Your task to perform on an android device: Go to settings Image 0: 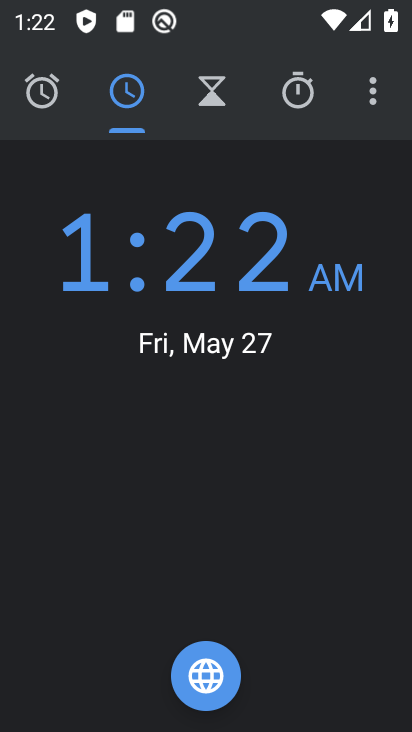
Step 0: press home button
Your task to perform on an android device: Go to settings Image 1: 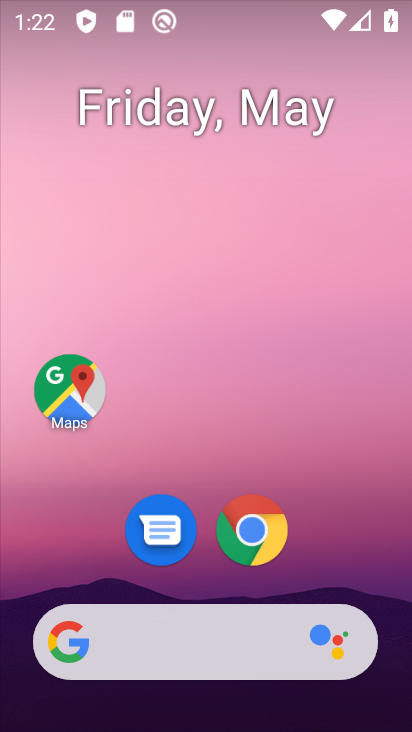
Step 1: drag from (307, 573) to (218, 0)
Your task to perform on an android device: Go to settings Image 2: 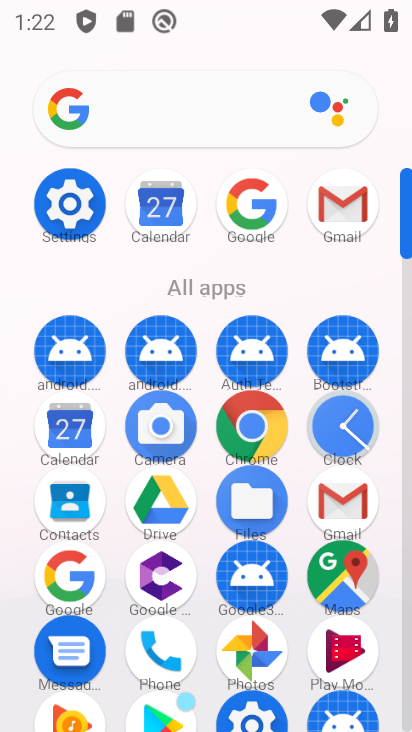
Step 2: click (62, 196)
Your task to perform on an android device: Go to settings Image 3: 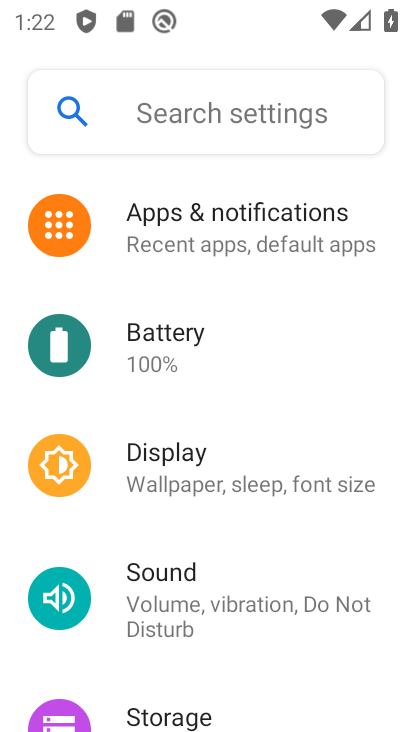
Step 3: task complete